Your task to perform on an android device: toggle translation in the chrome app Image 0: 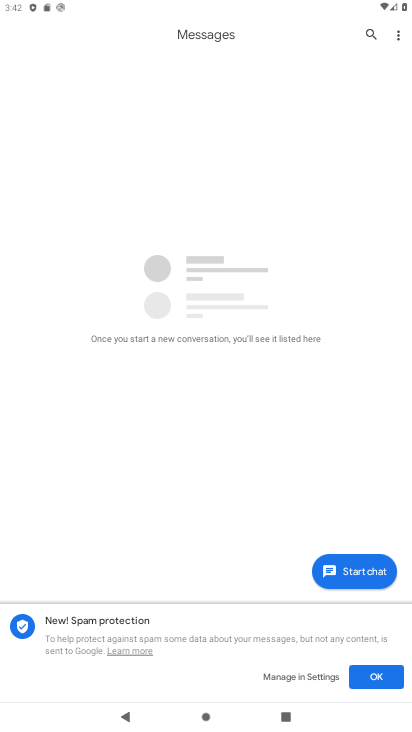
Step 0: press home button
Your task to perform on an android device: toggle translation in the chrome app Image 1: 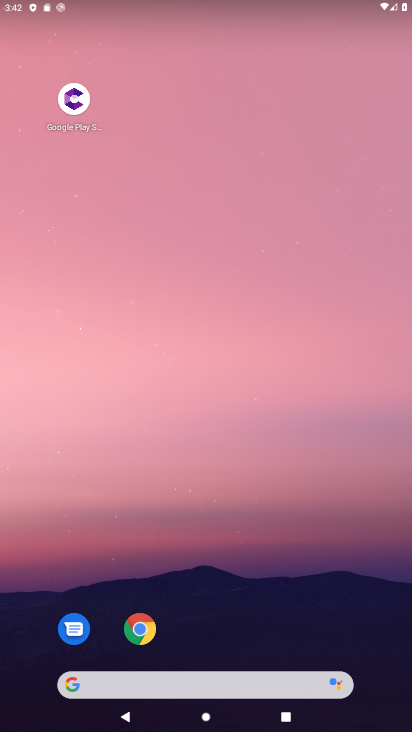
Step 1: drag from (247, 603) to (244, 134)
Your task to perform on an android device: toggle translation in the chrome app Image 2: 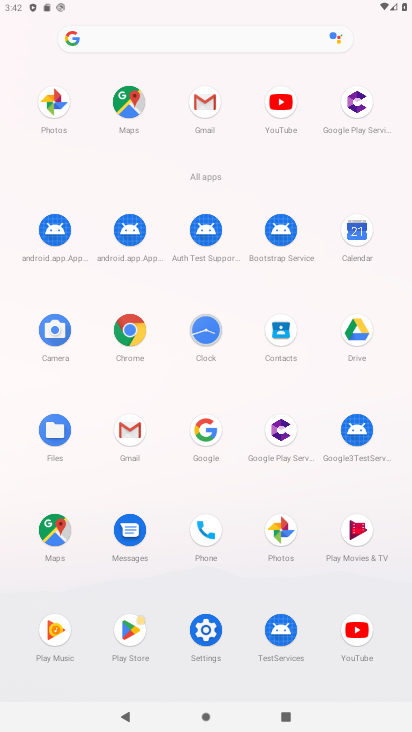
Step 2: click (134, 330)
Your task to perform on an android device: toggle translation in the chrome app Image 3: 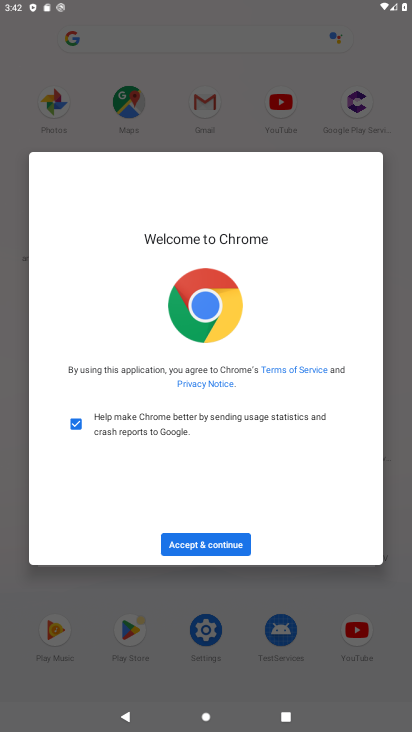
Step 3: click (206, 552)
Your task to perform on an android device: toggle translation in the chrome app Image 4: 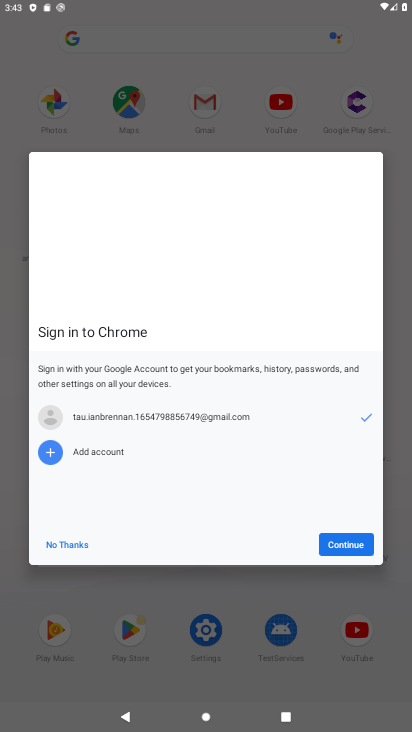
Step 4: click (86, 540)
Your task to perform on an android device: toggle translation in the chrome app Image 5: 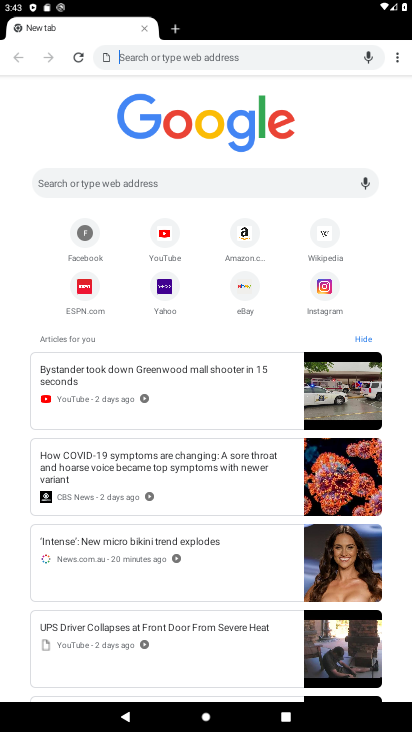
Step 5: drag from (396, 58) to (283, 275)
Your task to perform on an android device: toggle translation in the chrome app Image 6: 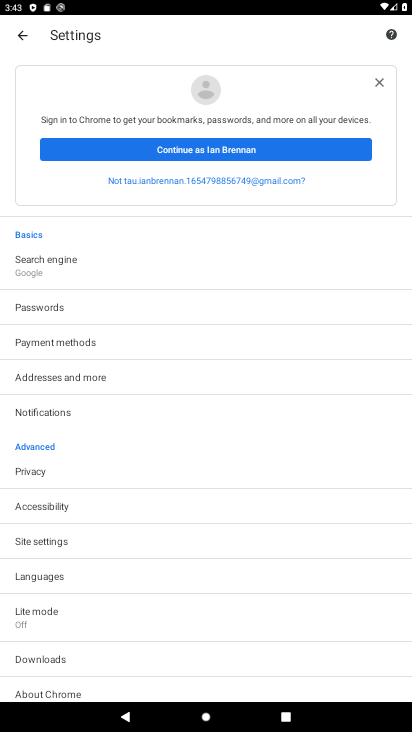
Step 6: click (90, 575)
Your task to perform on an android device: toggle translation in the chrome app Image 7: 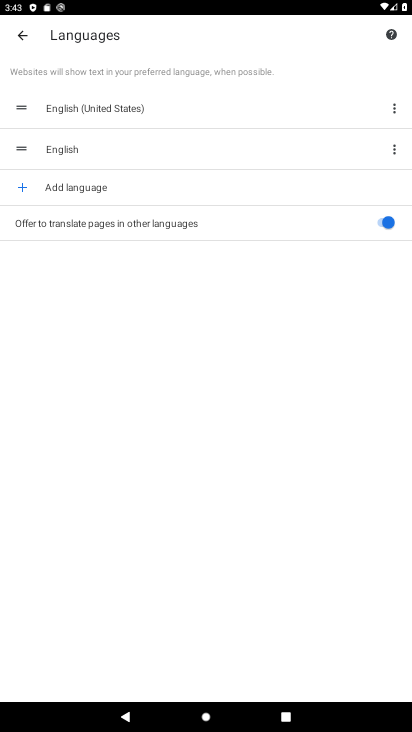
Step 7: click (383, 213)
Your task to perform on an android device: toggle translation in the chrome app Image 8: 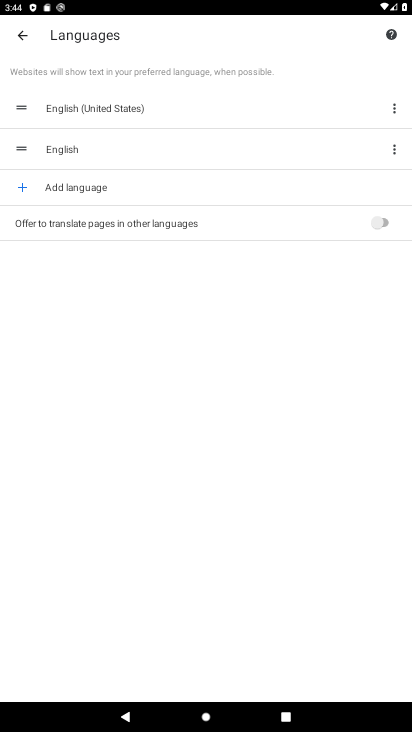
Step 8: task complete